Your task to perform on an android device: Search for Italian restaurants on Maps Image 0: 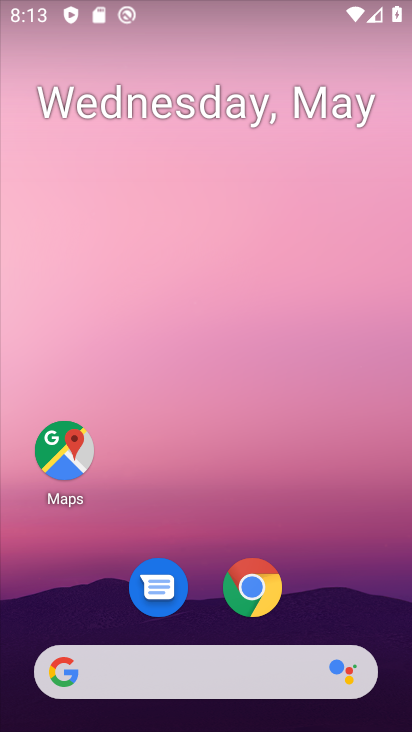
Step 0: click (63, 451)
Your task to perform on an android device: Search for Italian restaurants on Maps Image 1: 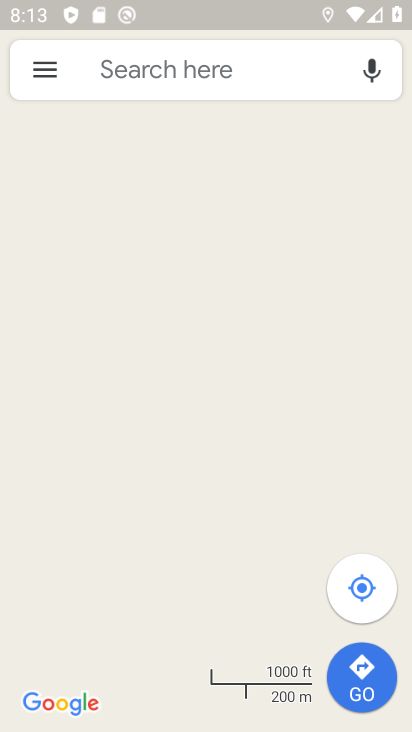
Step 1: click (175, 74)
Your task to perform on an android device: Search for Italian restaurants on Maps Image 2: 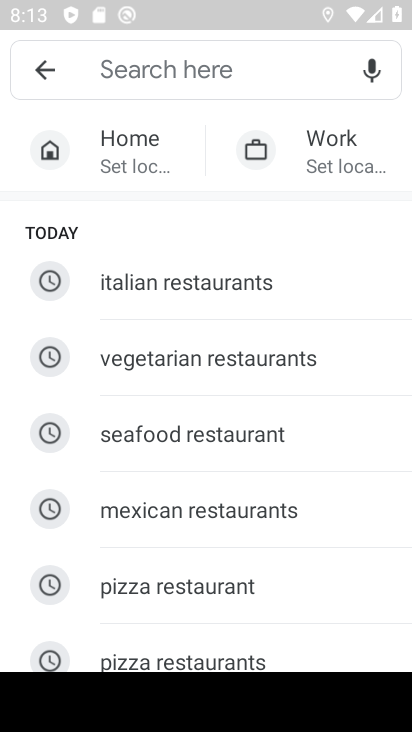
Step 2: type "italian restaurants"
Your task to perform on an android device: Search for Italian restaurants on Maps Image 3: 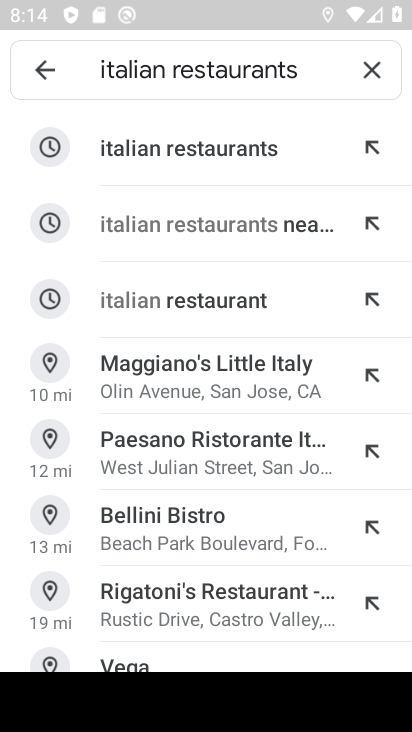
Step 3: click (141, 154)
Your task to perform on an android device: Search for Italian restaurants on Maps Image 4: 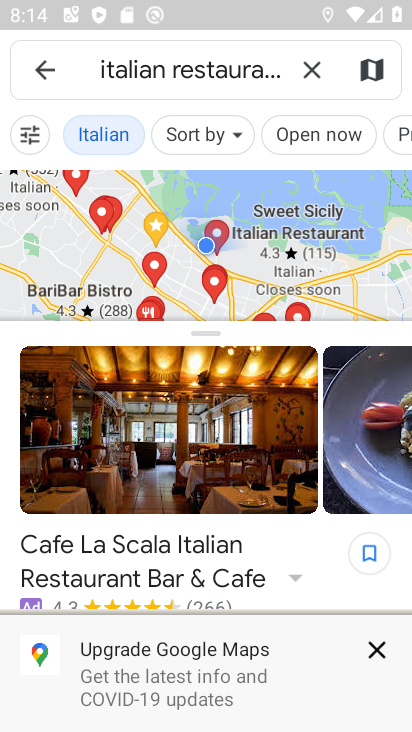
Step 4: task complete